Your task to perform on an android device: install app "Pinterest" Image 0: 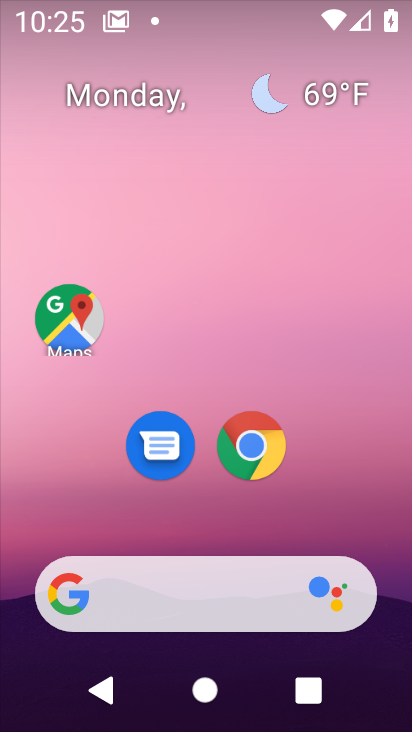
Step 0: drag from (211, 614) to (237, 275)
Your task to perform on an android device: install app "Pinterest" Image 1: 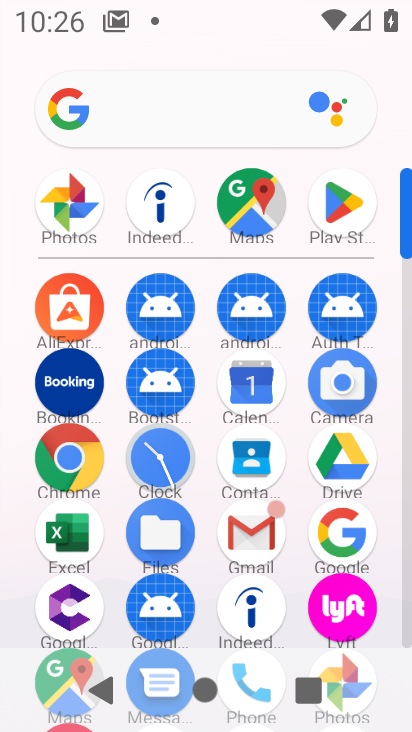
Step 1: click (363, 198)
Your task to perform on an android device: install app "Pinterest" Image 2: 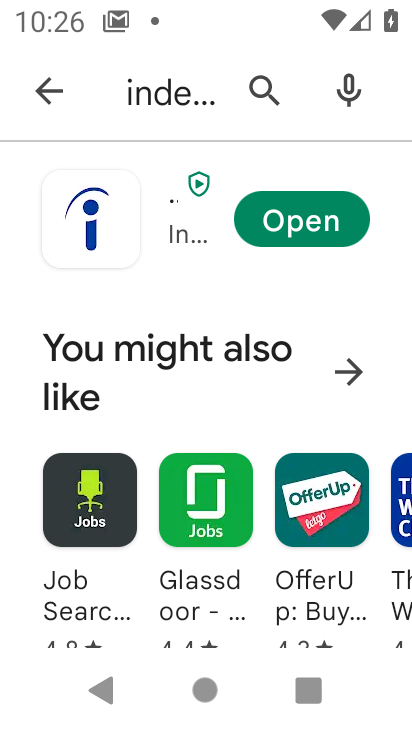
Step 2: click (47, 101)
Your task to perform on an android device: install app "Pinterest" Image 3: 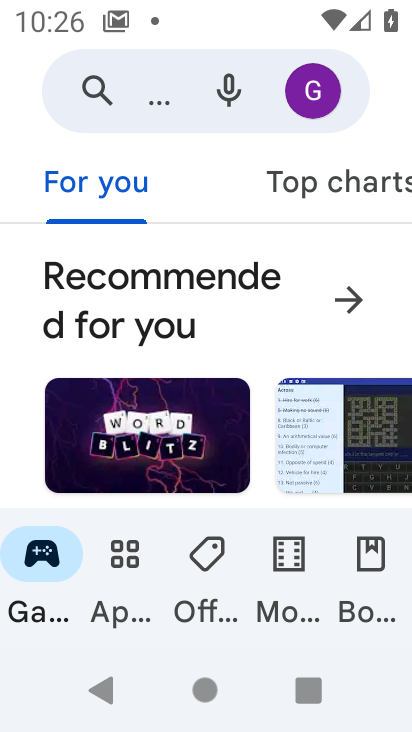
Step 3: click (80, 93)
Your task to perform on an android device: install app "Pinterest" Image 4: 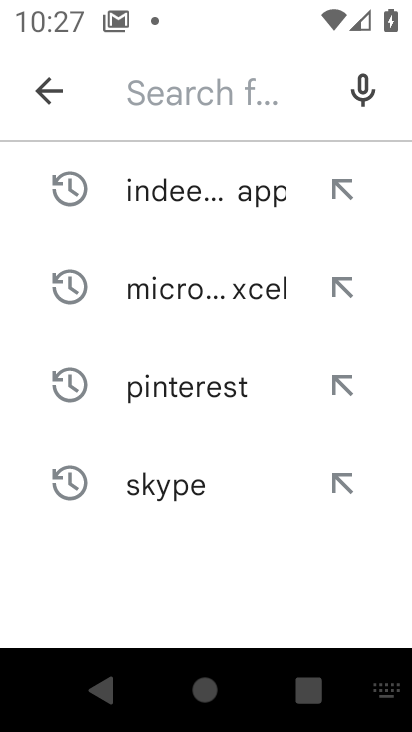
Step 4: click (198, 395)
Your task to perform on an android device: install app "Pinterest" Image 5: 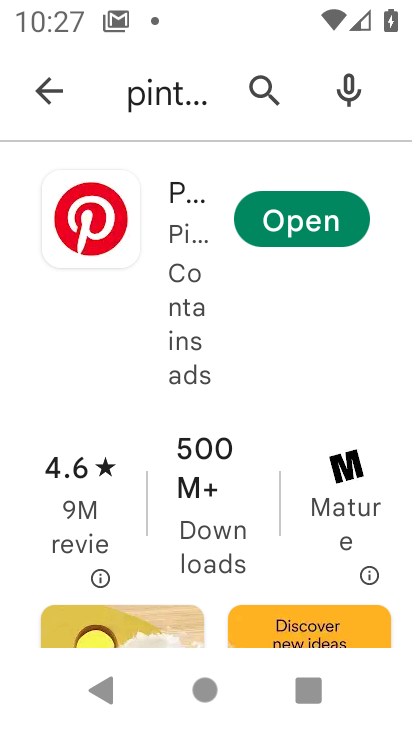
Step 5: task complete